Your task to perform on an android device: snooze an email in the gmail app Image 0: 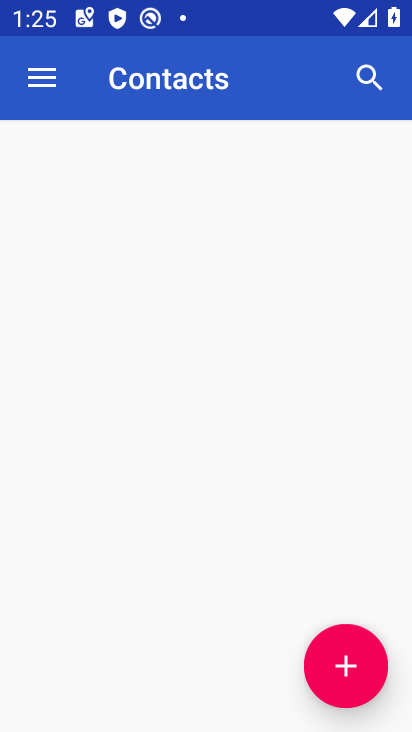
Step 0: drag from (364, 572) to (350, 406)
Your task to perform on an android device: snooze an email in the gmail app Image 1: 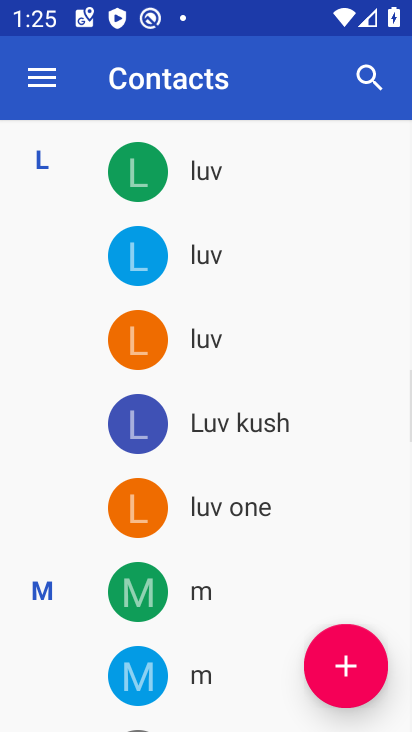
Step 1: press home button
Your task to perform on an android device: snooze an email in the gmail app Image 2: 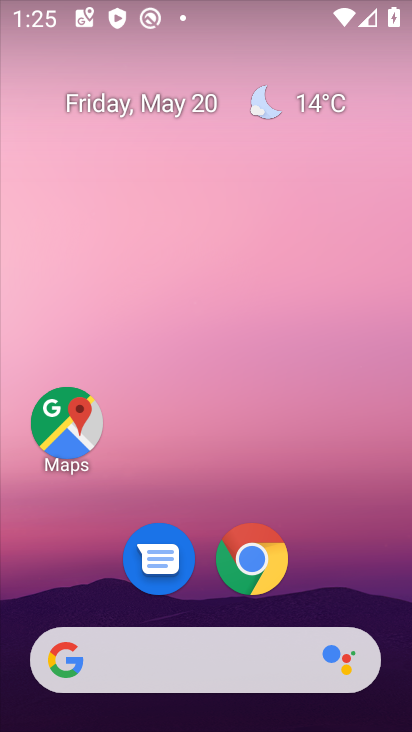
Step 2: drag from (364, 549) to (322, 278)
Your task to perform on an android device: snooze an email in the gmail app Image 3: 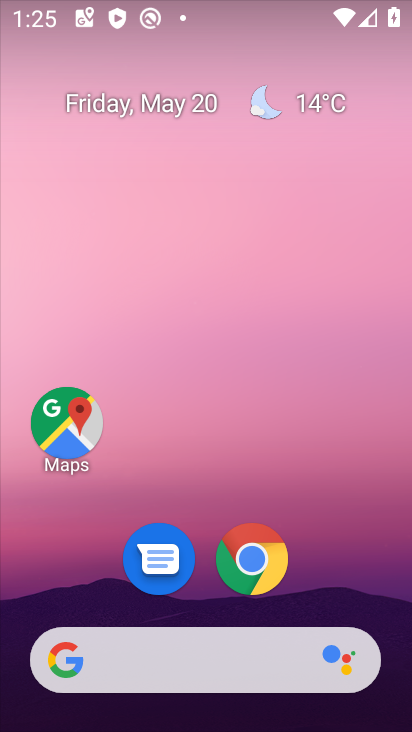
Step 3: drag from (337, 562) to (279, 27)
Your task to perform on an android device: snooze an email in the gmail app Image 4: 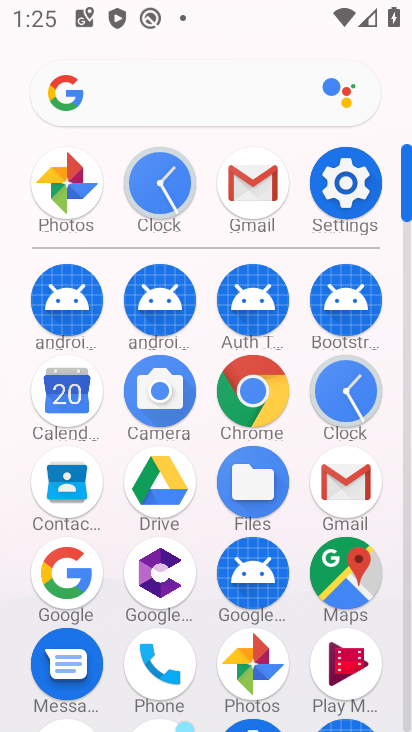
Step 4: click (243, 216)
Your task to perform on an android device: snooze an email in the gmail app Image 5: 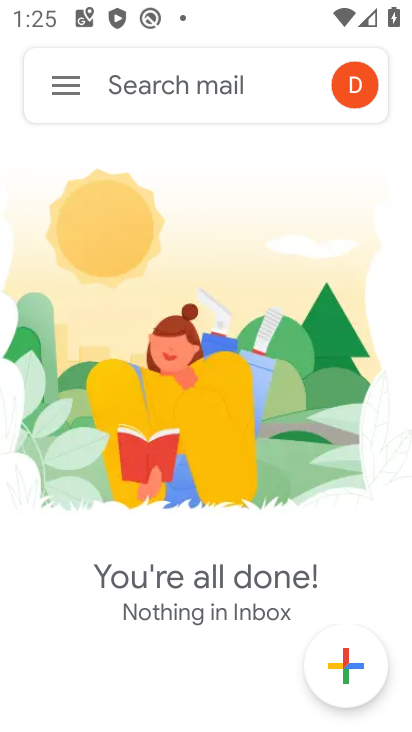
Step 5: click (70, 122)
Your task to perform on an android device: snooze an email in the gmail app Image 6: 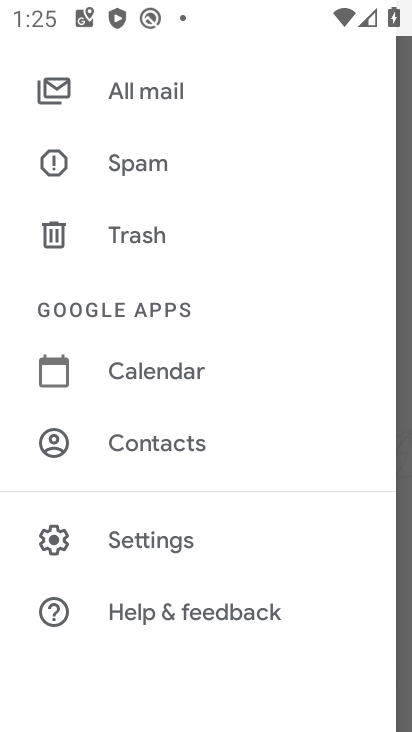
Step 6: click (144, 518)
Your task to perform on an android device: snooze an email in the gmail app Image 7: 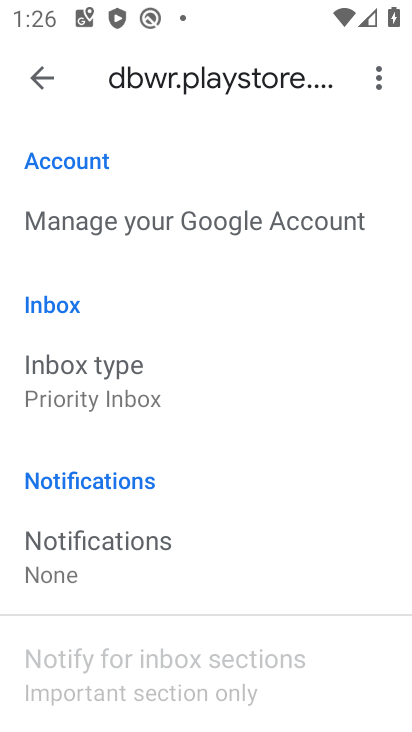
Step 7: click (17, 69)
Your task to perform on an android device: snooze an email in the gmail app Image 8: 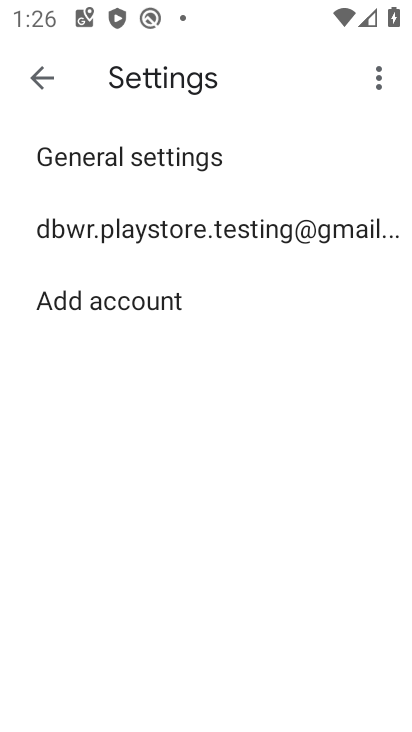
Step 8: click (17, 69)
Your task to perform on an android device: snooze an email in the gmail app Image 9: 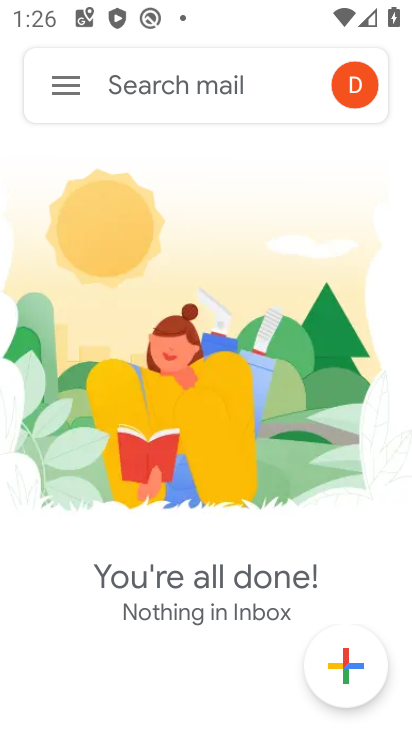
Step 9: click (71, 112)
Your task to perform on an android device: snooze an email in the gmail app Image 10: 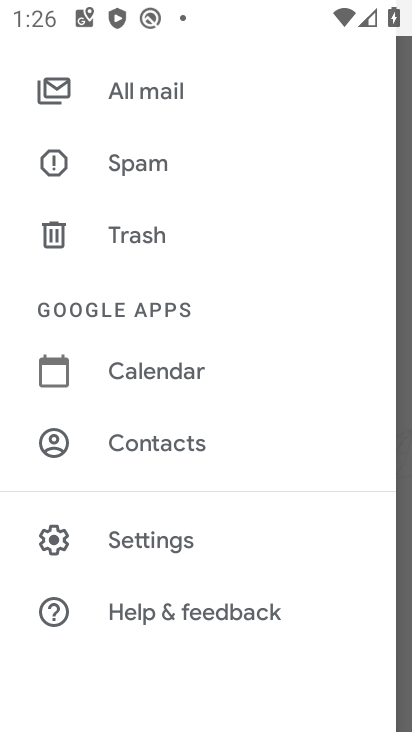
Step 10: click (93, 130)
Your task to perform on an android device: snooze an email in the gmail app Image 11: 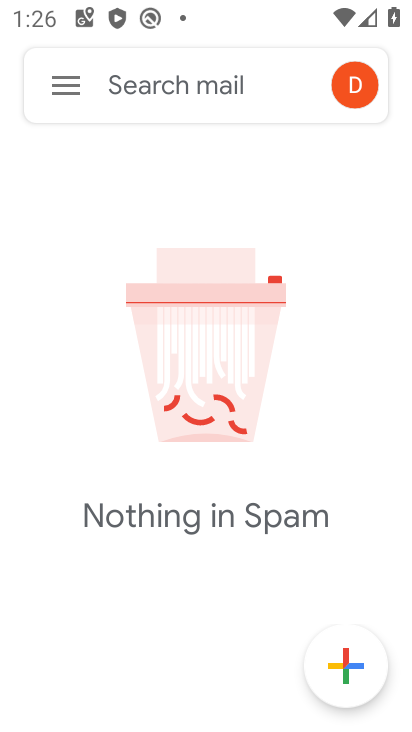
Step 11: task complete